Your task to perform on an android device: add a contact in the contacts app Image 0: 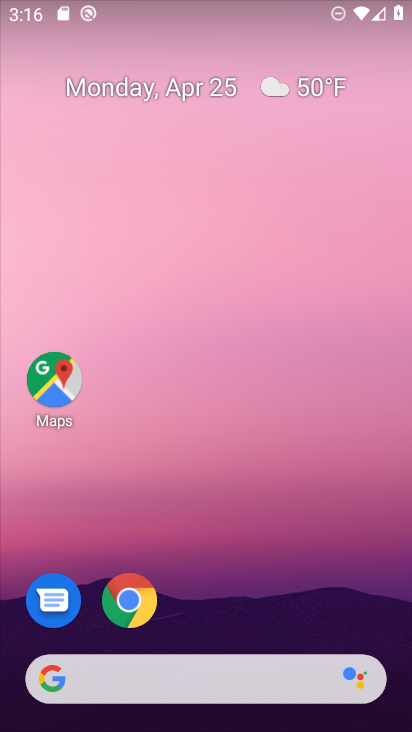
Step 0: drag from (212, 643) to (176, 53)
Your task to perform on an android device: add a contact in the contacts app Image 1: 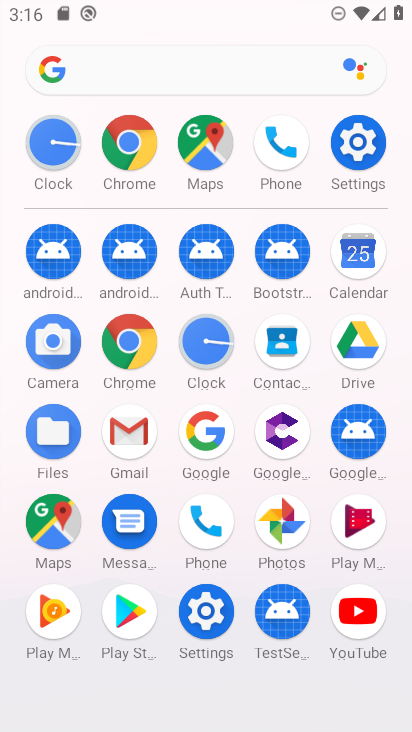
Step 1: click (199, 542)
Your task to perform on an android device: add a contact in the contacts app Image 2: 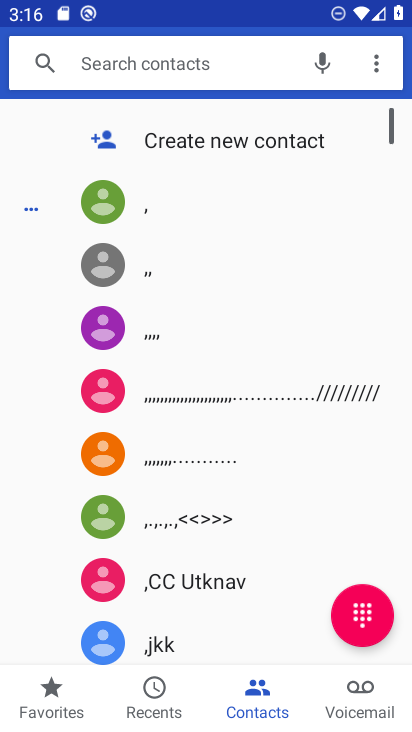
Step 2: click (197, 142)
Your task to perform on an android device: add a contact in the contacts app Image 3: 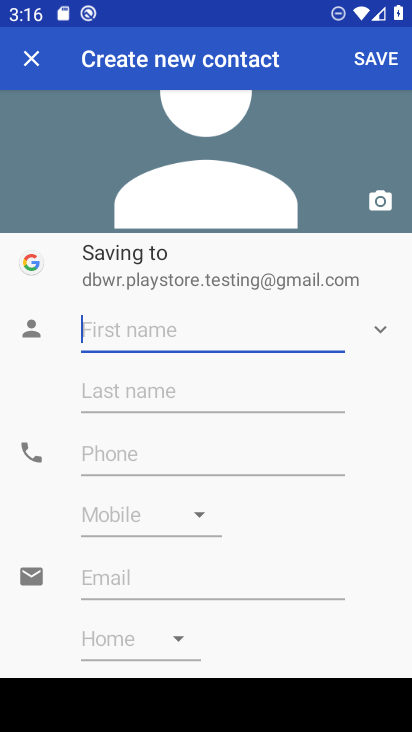
Step 3: type "huj"
Your task to perform on an android device: add a contact in the contacts app Image 4: 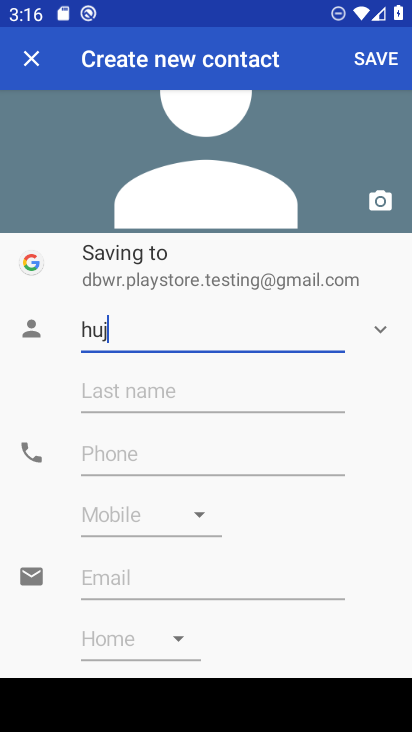
Step 4: click (140, 457)
Your task to perform on an android device: add a contact in the contacts app Image 5: 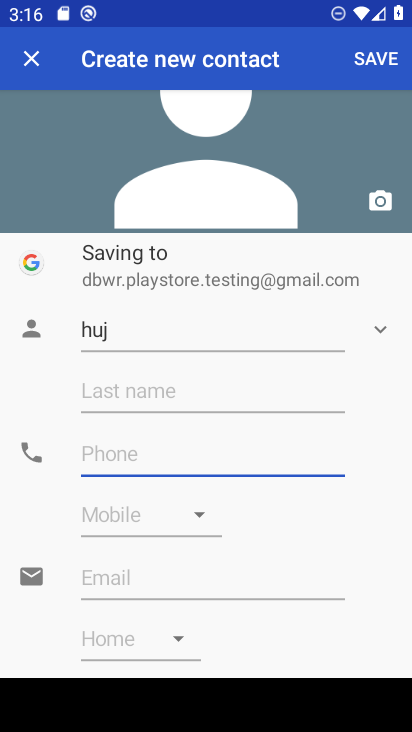
Step 5: type "7887"
Your task to perform on an android device: add a contact in the contacts app Image 6: 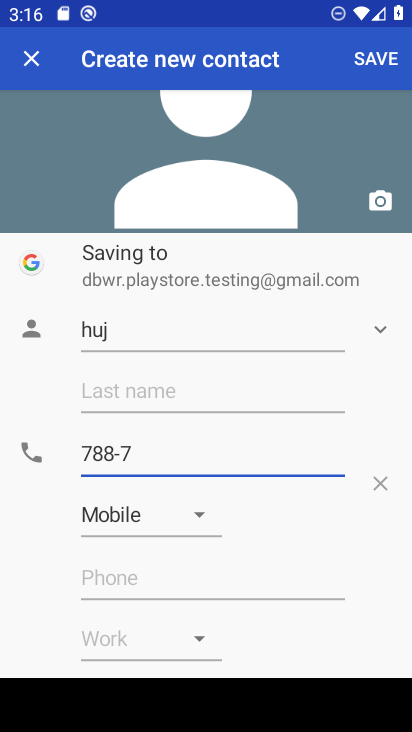
Step 6: click (381, 51)
Your task to perform on an android device: add a contact in the contacts app Image 7: 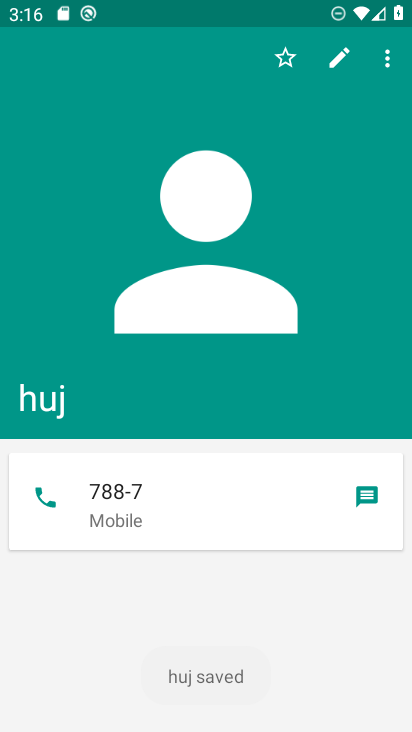
Step 7: task complete